Your task to perform on an android device: change notification settings in the gmail app Image 0: 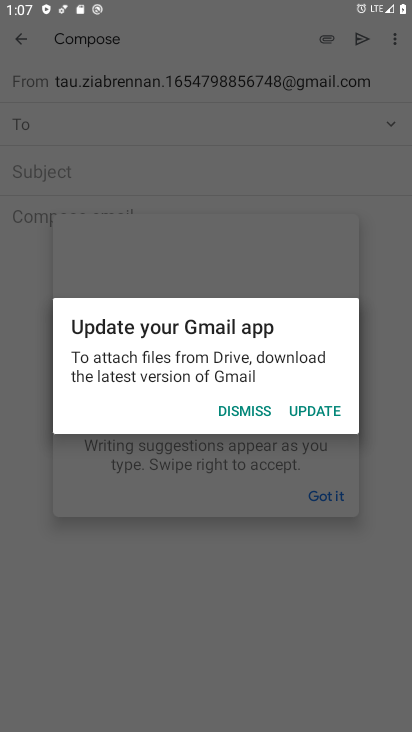
Step 0: press home button
Your task to perform on an android device: change notification settings in the gmail app Image 1: 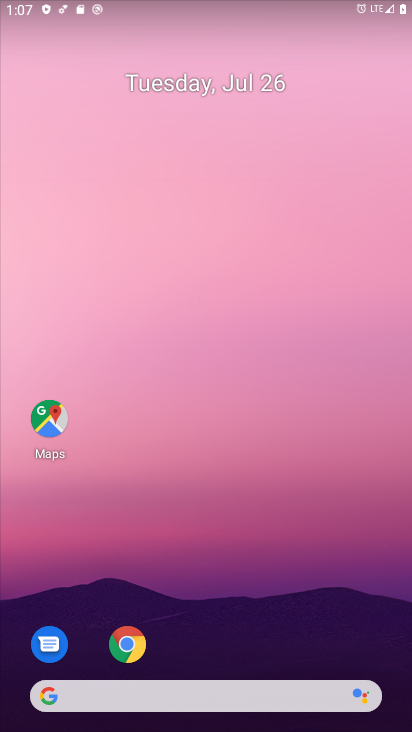
Step 1: drag from (101, 722) to (202, 142)
Your task to perform on an android device: change notification settings in the gmail app Image 2: 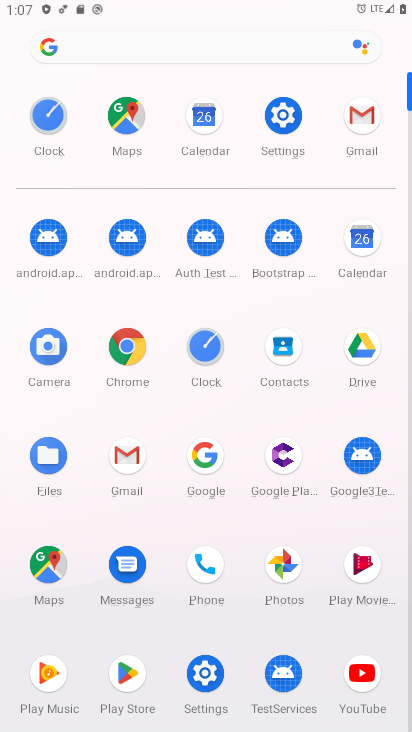
Step 2: click (297, 115)
Your task to perform on an android device: change notification settings in the gmail app Image 3: 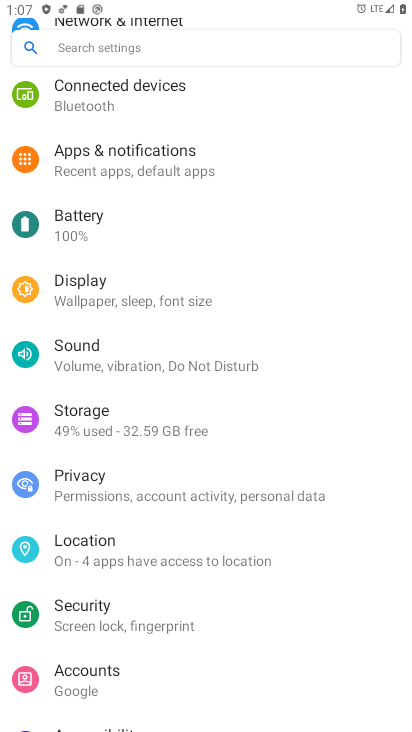
Step 3: click (155, 165)
Your task to perform on an android device: change notification settings in the gmail app Image 4: 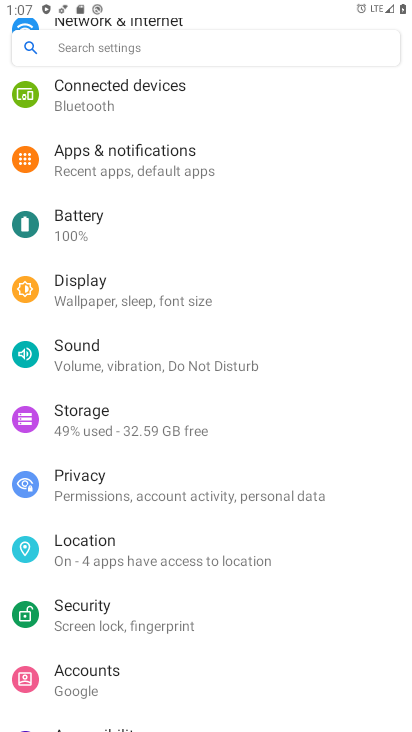
Step 4: click (155, 165)
Your task to perform on an android device: change notification settings in the gmail app Image 5: 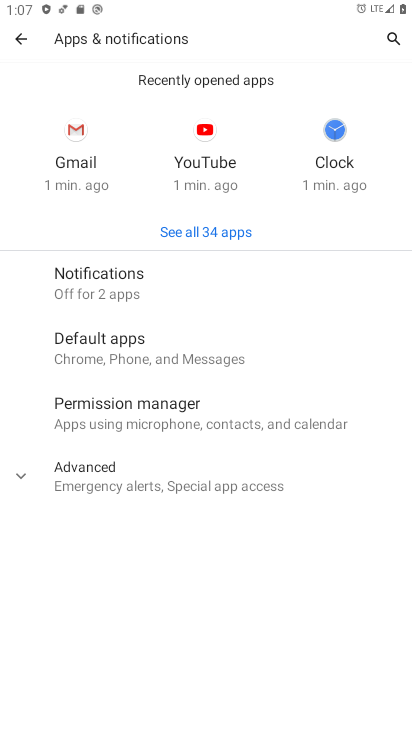
Step 5: click (63, 145)
Your task to perform on an android device: change notification settings in the gmail app Image 6: 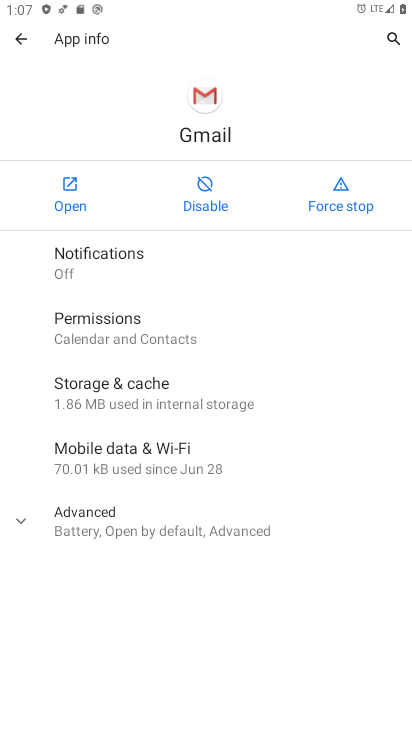
Step 6: click (66, 279)
Your task to perform on an android device: change notification settings in the gmail app Image 7: 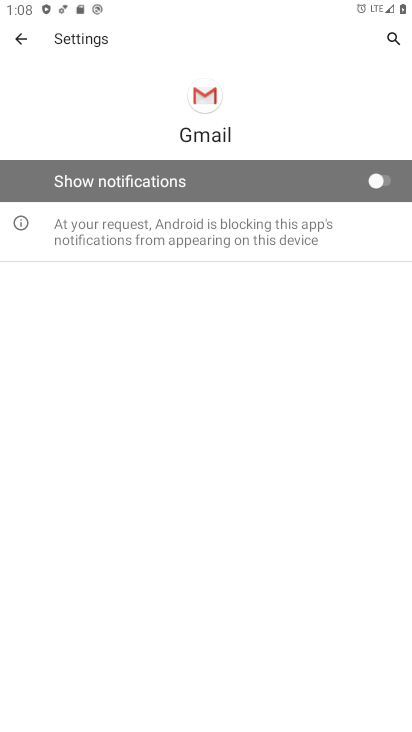
Step 7: click (375, 187)
Your task to perform on an android device: change notification settings in the gmail app Image 8: 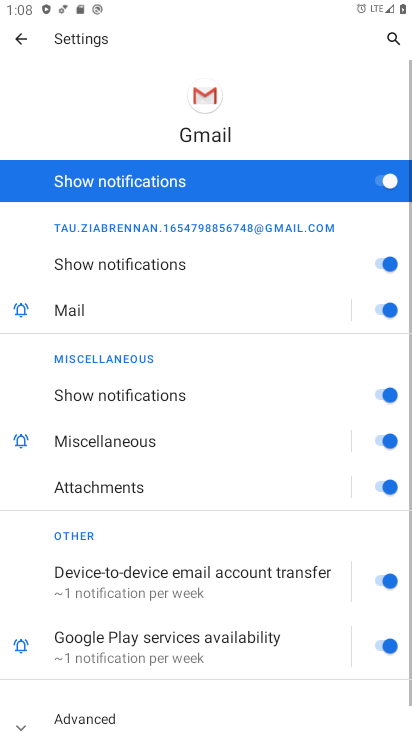
Step 8: task complete